Your task to perform on an android device: turn on airplane mode Image 0: 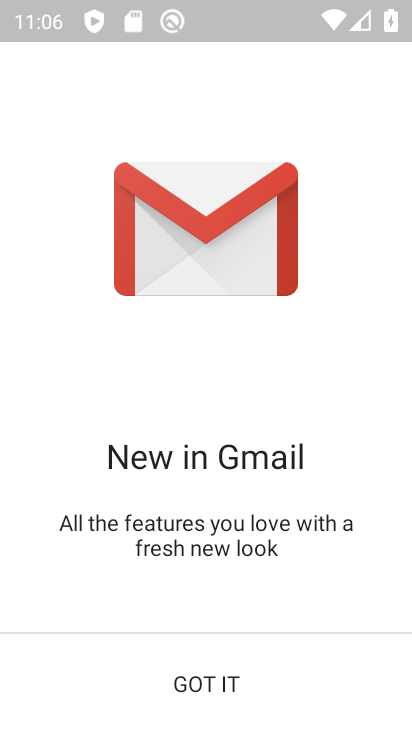
Step 0: press home button
Your task to perform on an android device: turn on airplane mode Image 1: 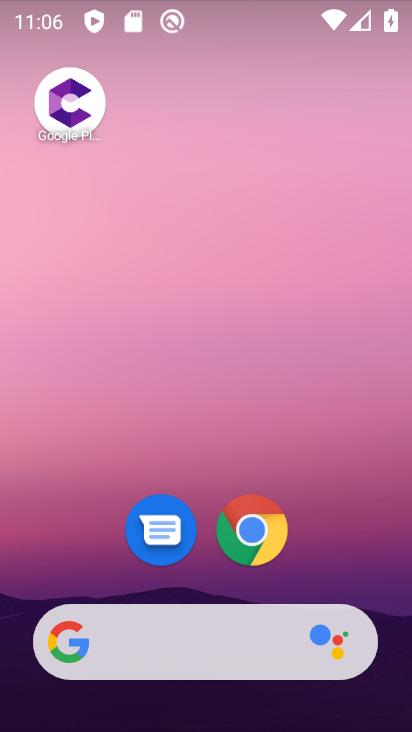
Step 1: drag from (283, 589) to (211, 23)
Your task to perform on an android device: turn on airplane mode Image 2: 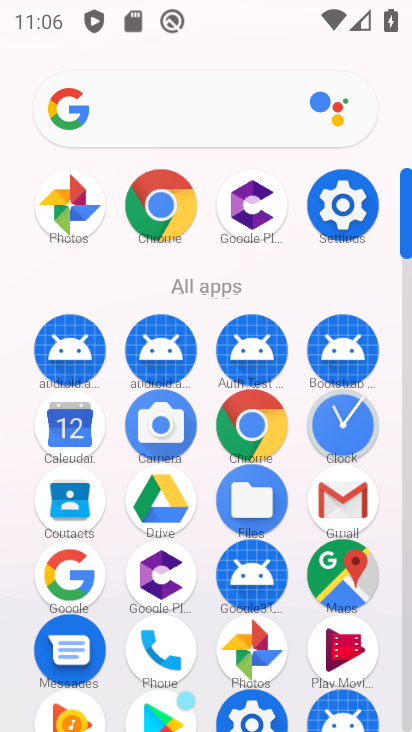
Step 2: click (328, 216)
Your task to perform on an android device: turn on airplane mode Image 3: 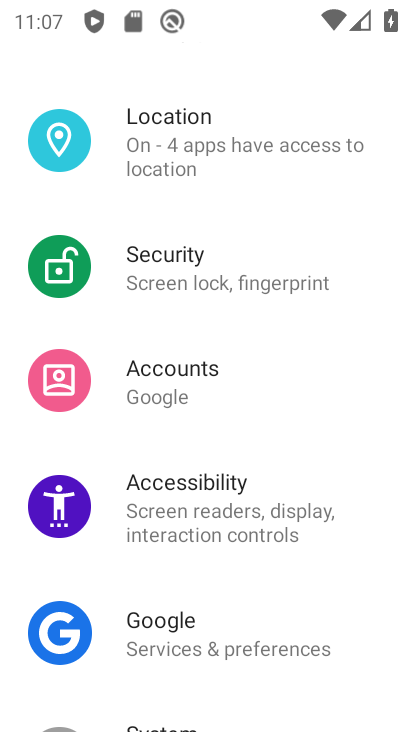
Step 3: drag from (261, 464) to (268, 627)
Your task to perform on an android device: turn on airplane mode Image 4: 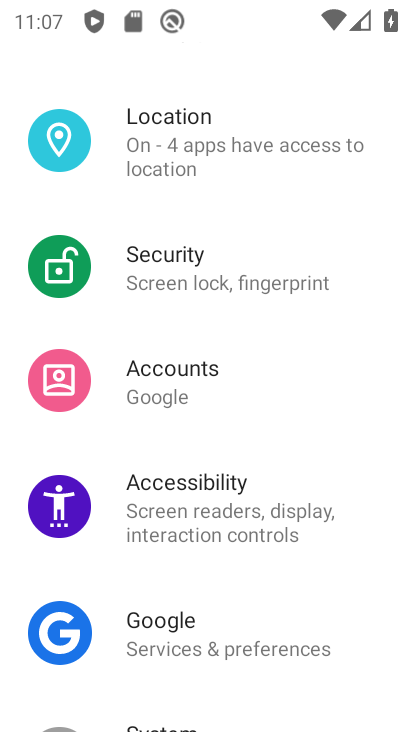
Step 4: drag from (246, 270) to (306, 572)
Your task to perform on an android device: turn on airplane mode Image 5: 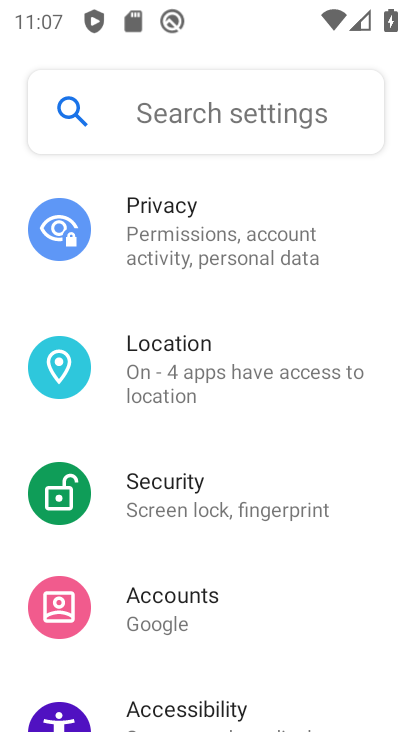
Step 5: drag from (209, 227) to (254, 624)
Your task to perform on an android device: turn on airplane mode Image 6: 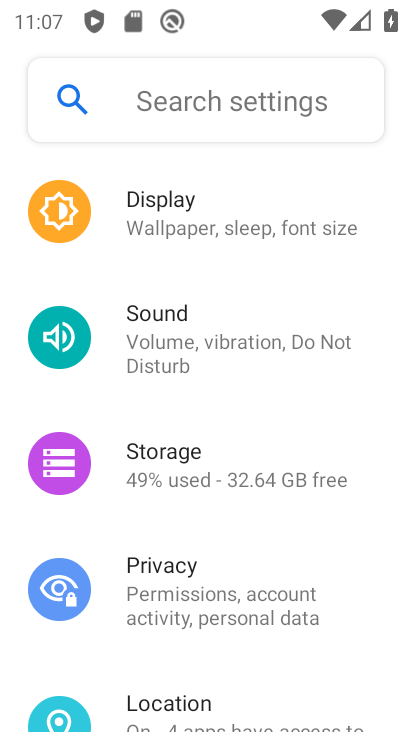
Step 6: drag from (174, 225) to (212, 653)
Your task to perform on an android device: turn on airplane mode Image 7: 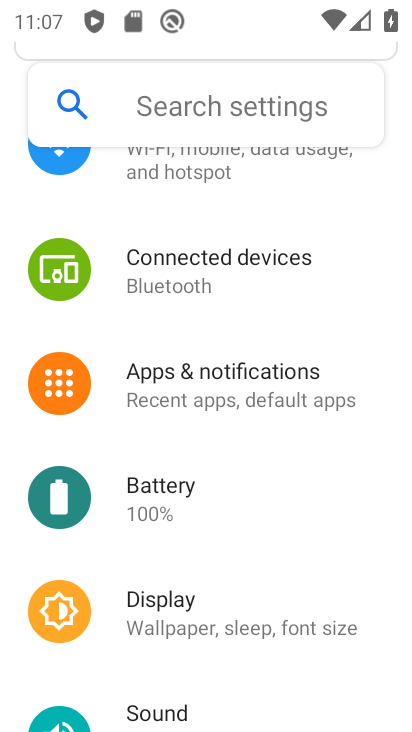
Step 7: drag from (193, 265) to (242, 646)
Your task to perform on an android device: turn on airplane mode Image 8: 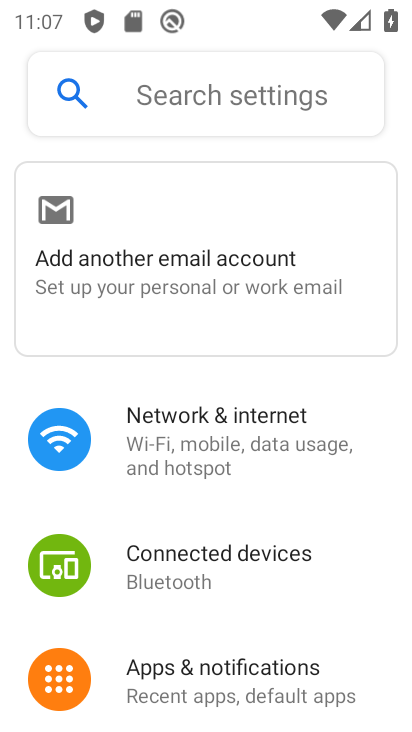
Step 8: click (182, 439)
Your task to perform on an android device: turn on airplane mode Image 9: 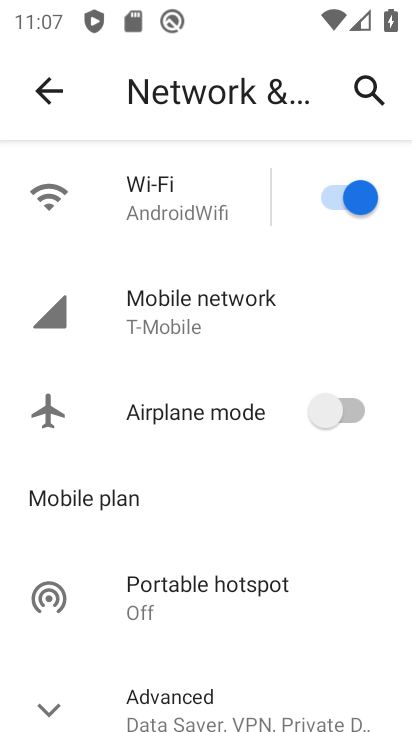
Step 9: click (333, 415)
Your task to perform on an android device: turn on airplane mode Image 10: 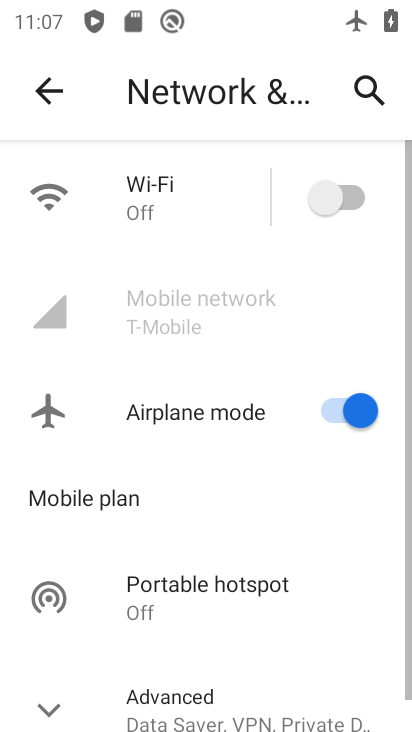
Step 10: task complete